Your task to perform on an android device: What is the news today? Image 0: 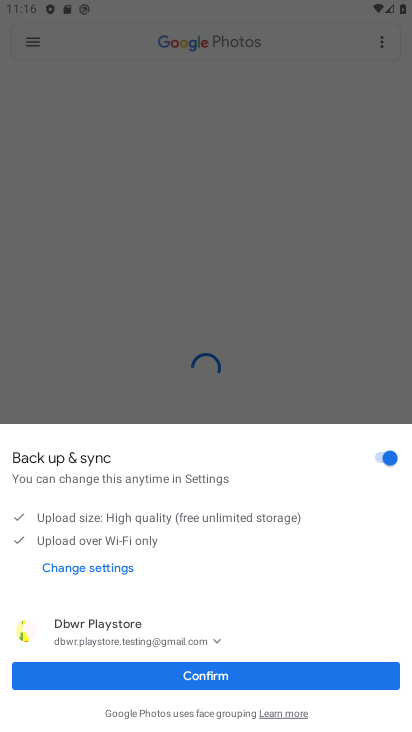
Step 0: press home button
Your task to perform on an android device: What is the news today? Image 1: 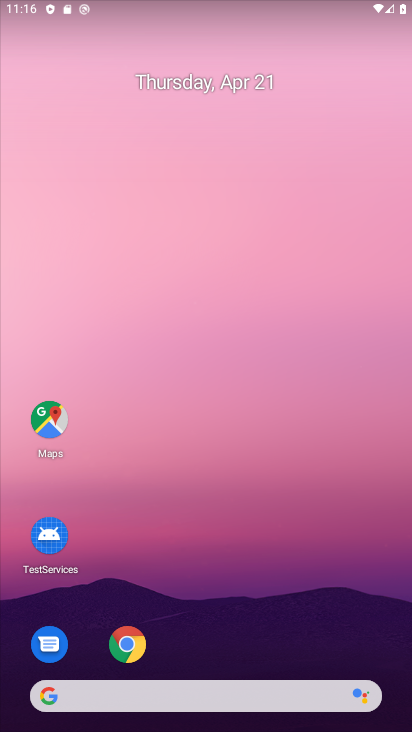
Step 1: drag from (275, 589) to (283, 66)
Your task to perform on an android device: What is the news today? Image 2: 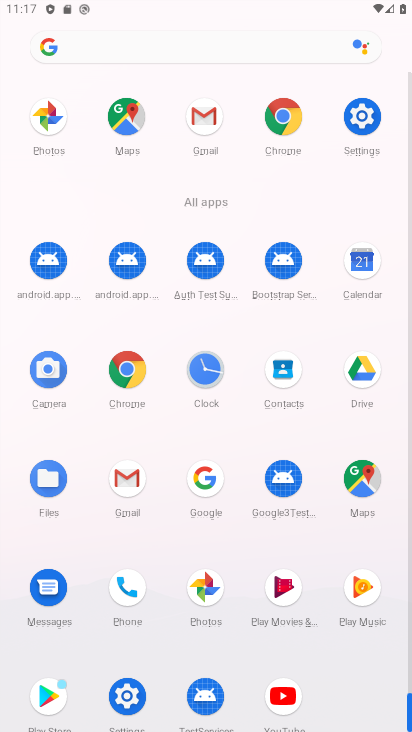
Step 2: click (131, 369)
Your task to perform on an android device: What is the news today? Image 3: 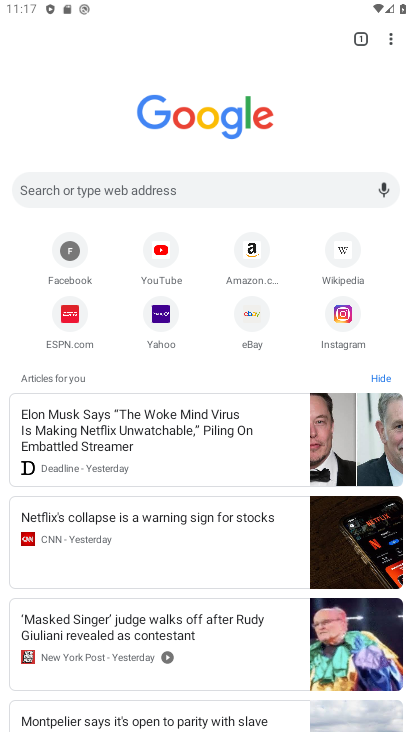
Step 3: click (208, 183)
Your task to perform on an android device: What is the news today? Image 4: 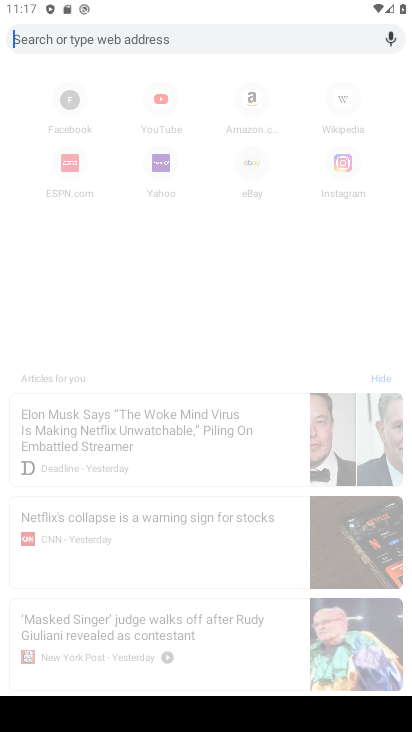
Step 4: type "news"
Your task to perform on an android device: What is the news today? Image 5: 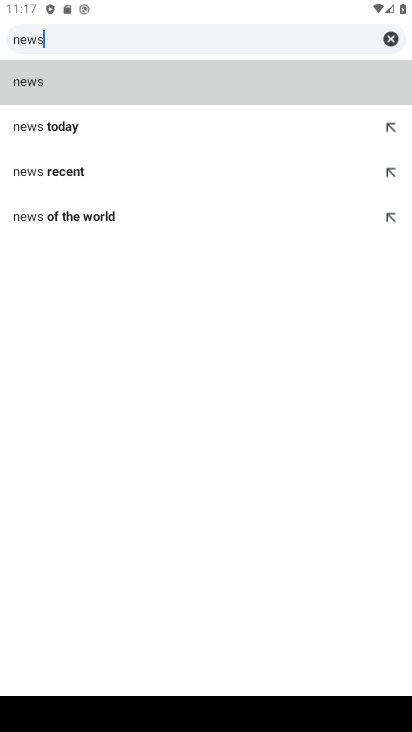
Step 5: click (37, 90)
Your task to perform on an android device: What is the news today? Image 6: 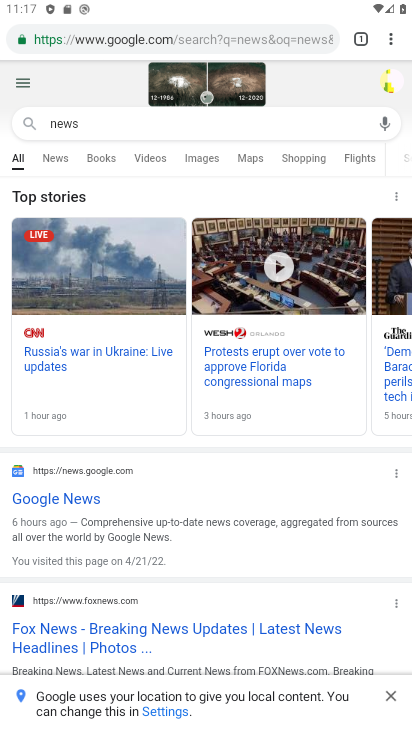
Step 6: click (54, 160)
Your task to perform on an android device: What is the news today? Image 7: 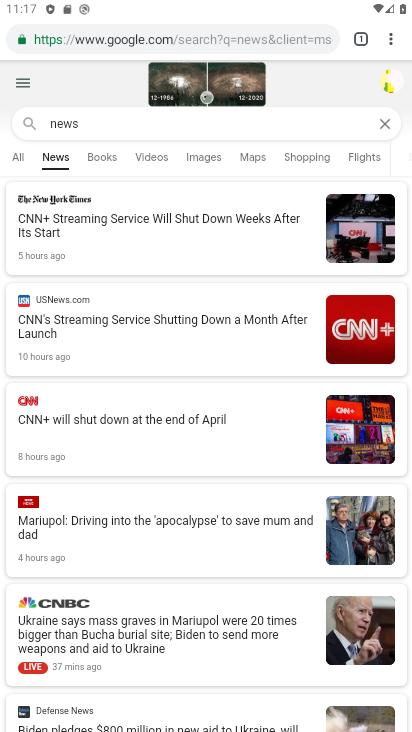
Step 7: task complete